Your task to perform on an android device: Open Yahoo.com Image 0: 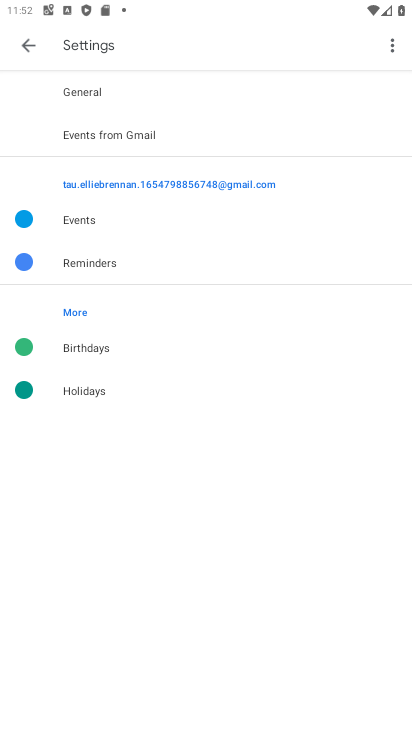
Step 0: press home button
Your task to perform on an android device: Open Yahoo.com Image 1: 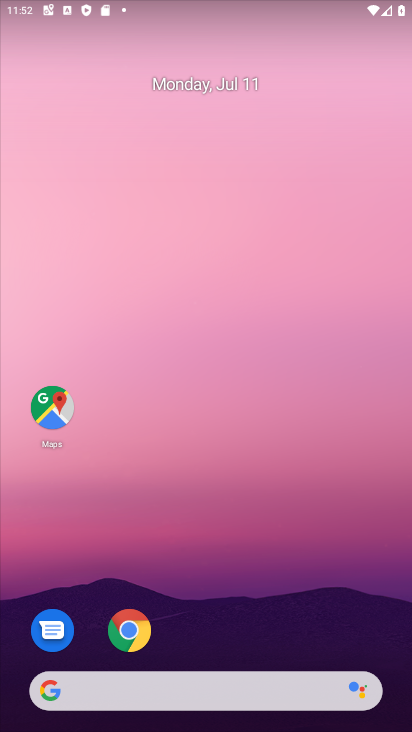
Step 1: click (128, 629)
Your task to perform on an android device: Open Yahoo.com Image 2: 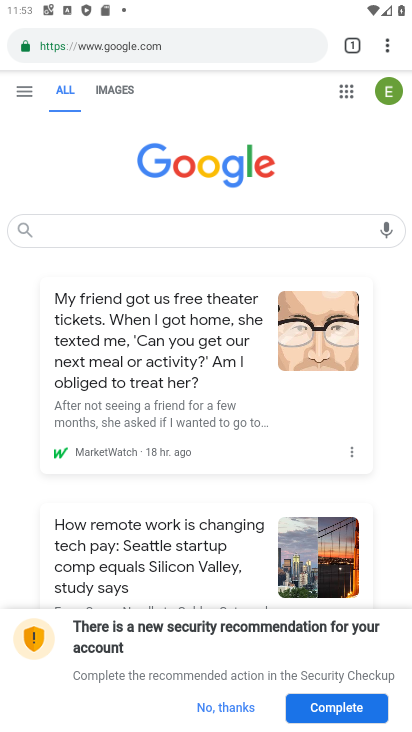
Step 2: click (191, 41)
Your task to perform on an android device: Open Yahoo.com Image 3: 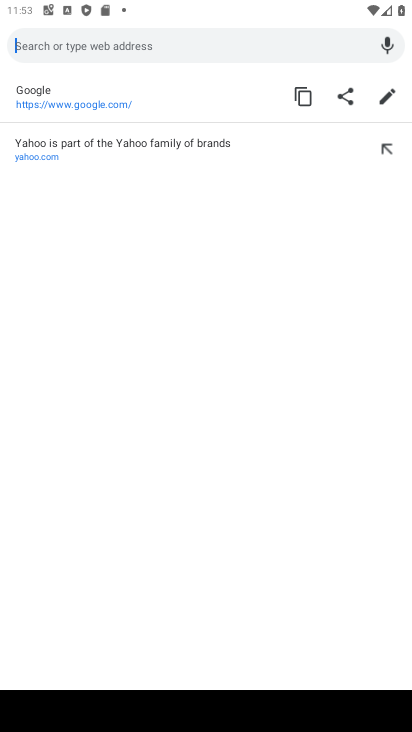
Step 3: type "Yahoo.com"
Your task to perform on an android device: Open Yahoo.com Image 4: 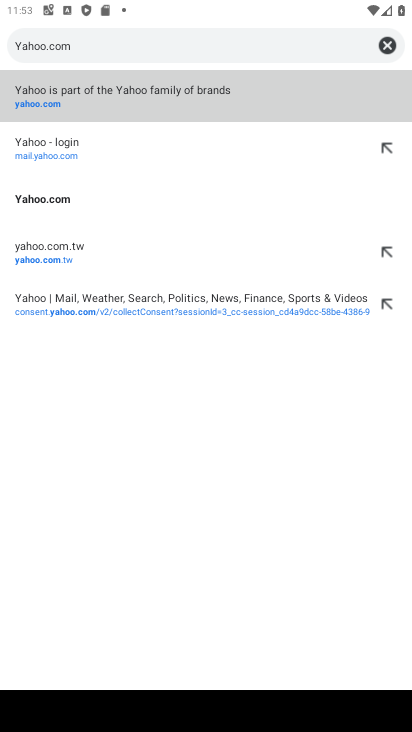
Step 4: click (90, 92)
Your task to perform on an android device: Open Yahoo.com Image 5: 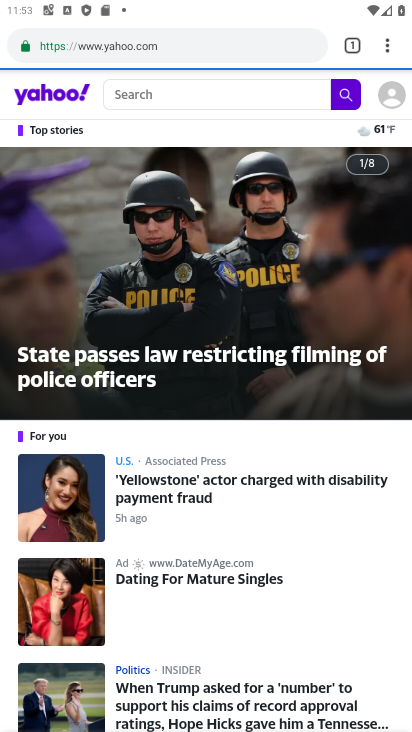
Step 5: drag from (326, 631) to (292, 188)
Your task to perform on an android device: Open Yahoo.com Image 6: 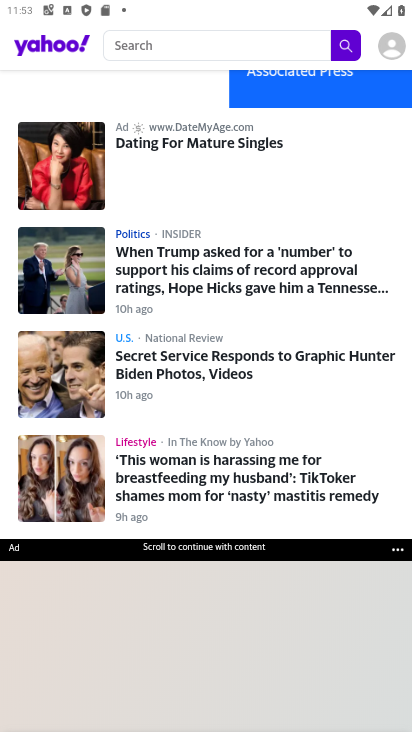
Step 6: click (294, 546)
Your task to perform on an android device: Open Yahoo.com Image 7: 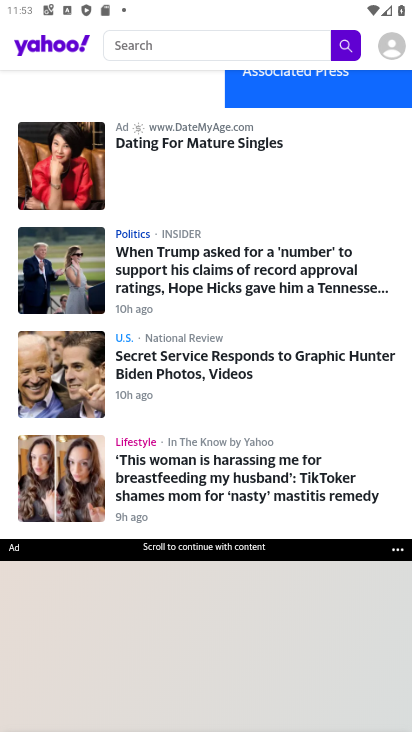
Step 7: task complete